Your task to perform on an android device: Open Yahoo.com Image 0: 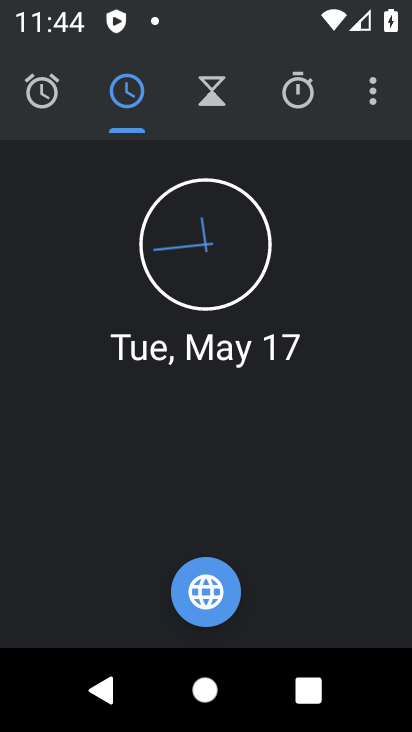
Step 0: press home button
Your task to perform on an android device: Open Yahoo.com Image 1: 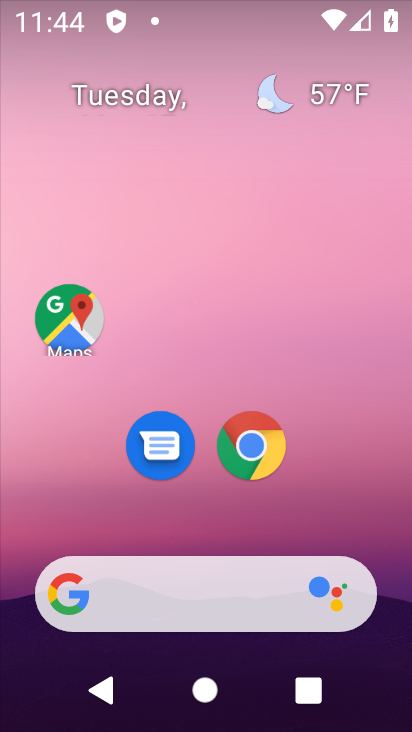
Step 1: drag from (370, 509) to (360, 150)
Your task to perform on an android device: Open Yahoo.com Image 2: 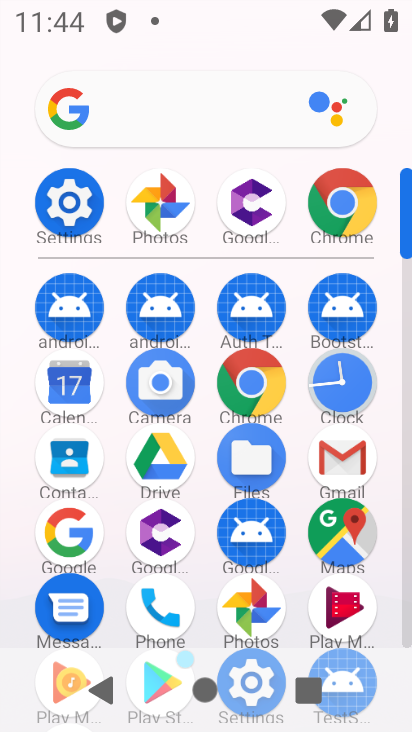
Step 2: click (263, 393)
Your task to perform on an android device: Open Yahoo.com Image 3: 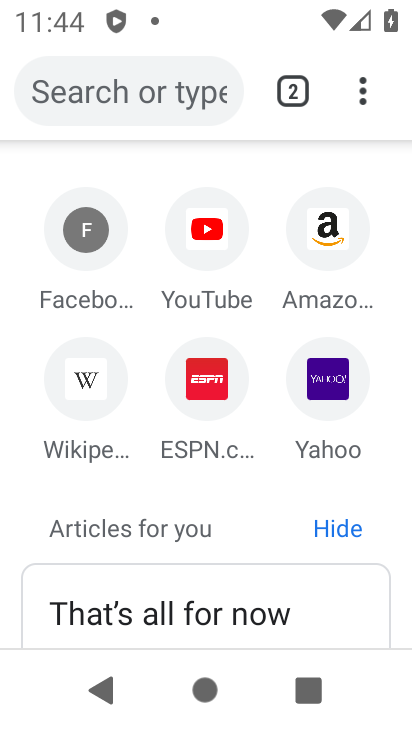
Step 3: click (342, 413)
Your task to perform on an android device: Open Yahoo.com Image 4: 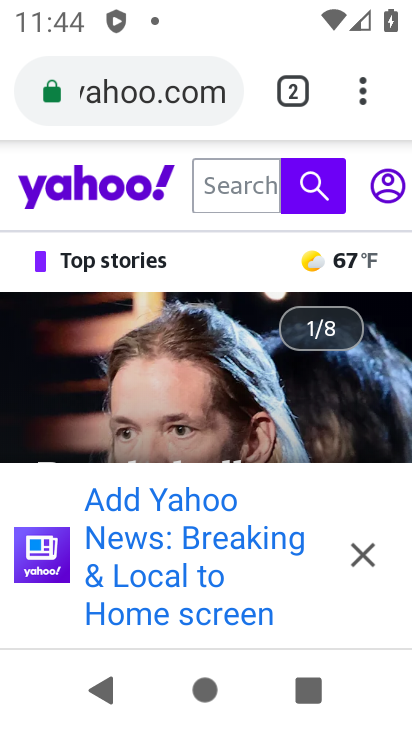
Step 4: task complete